Your task to perform on an android device: View the shopping cart on ebay.com. Search for "usb-a" on ebay.com, select the first entry, add it to the cart, then select checkout. Image 0: 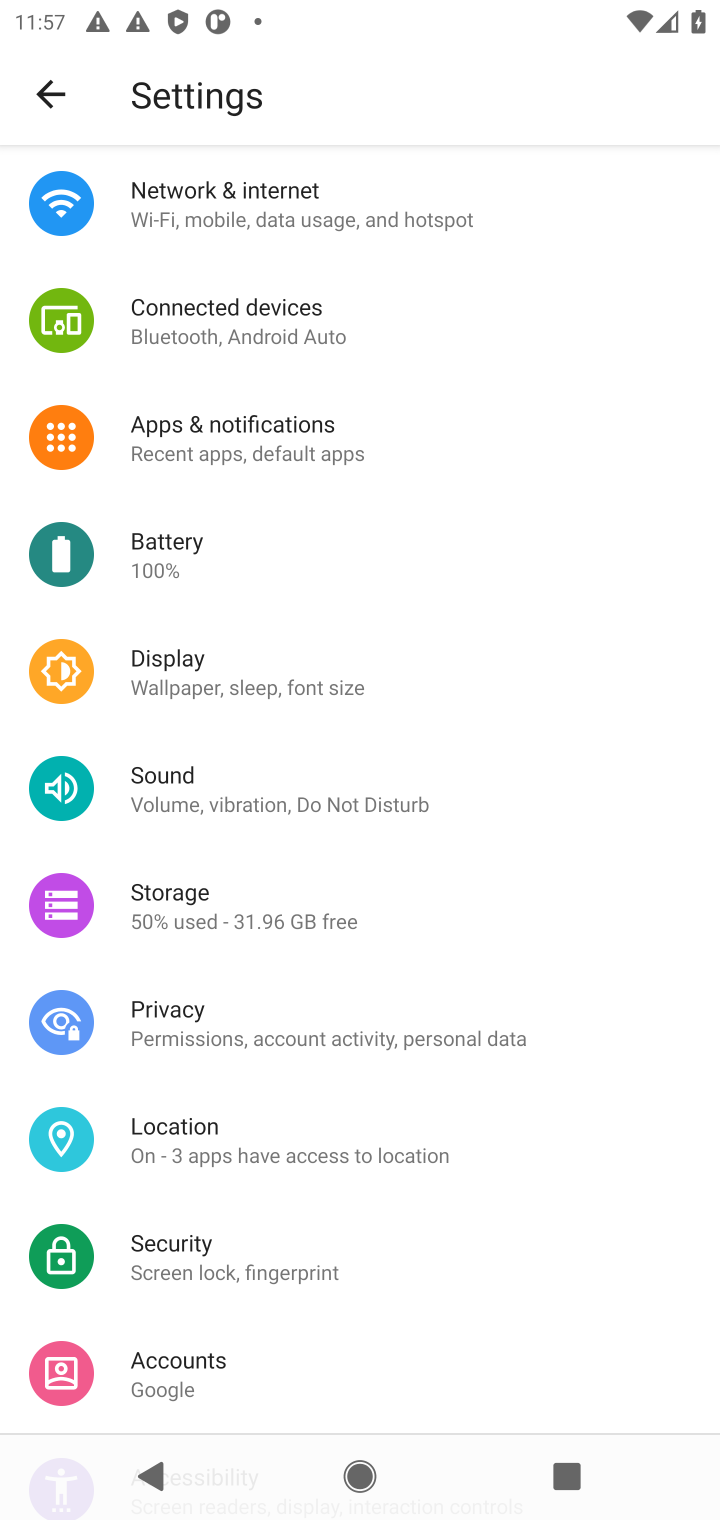
Step 0: press home button
Your task to perform on an android device: View the shopping cart on ebay.com. Search for "usb-a" on ebay.com, select the first entry, add it to the cart, then select checkout. Image 1: 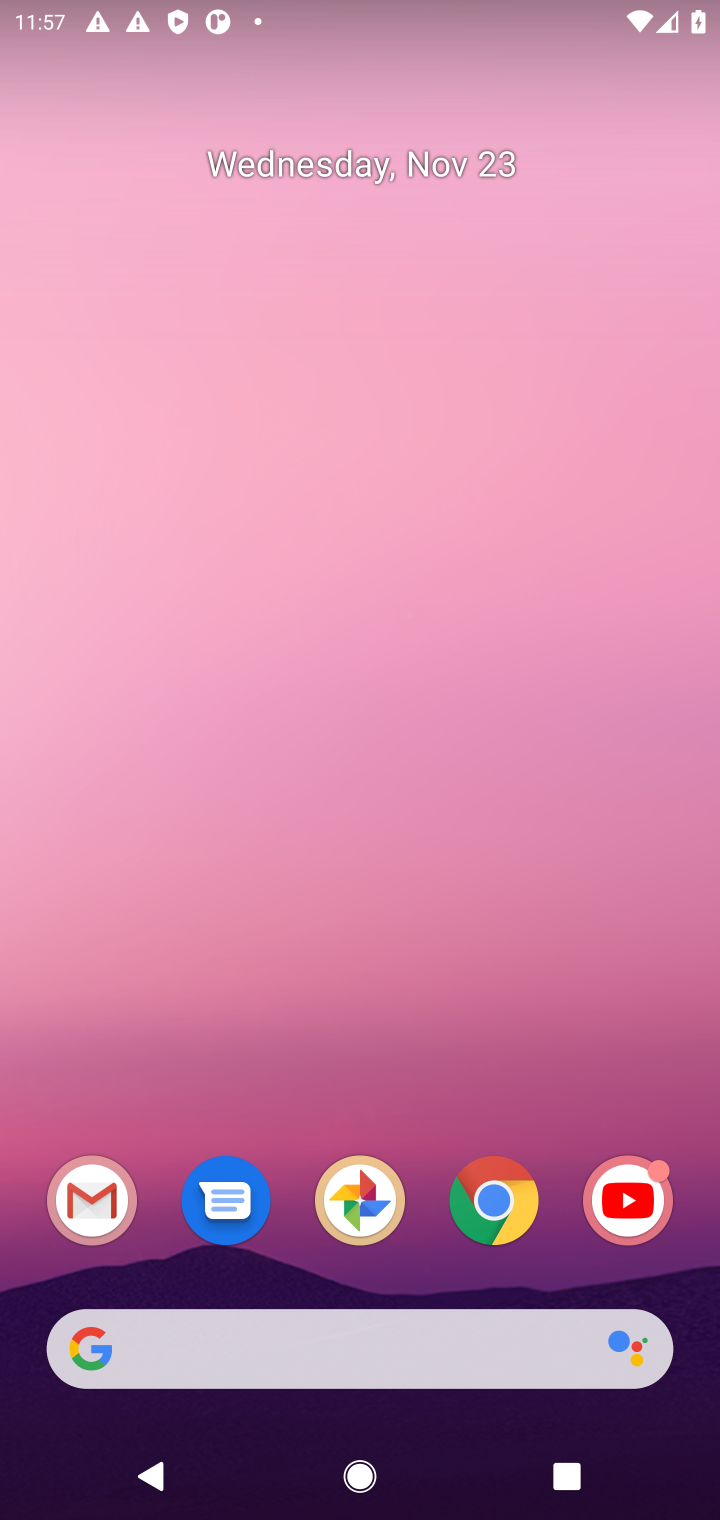
Step 1: click (478, 1337)
Your task to perform on an android device: View the shopping cart on ebay.com. Search for "usb-a" on ebay.com, select the first entry, add it to the cart, then select checkout. Image 2: 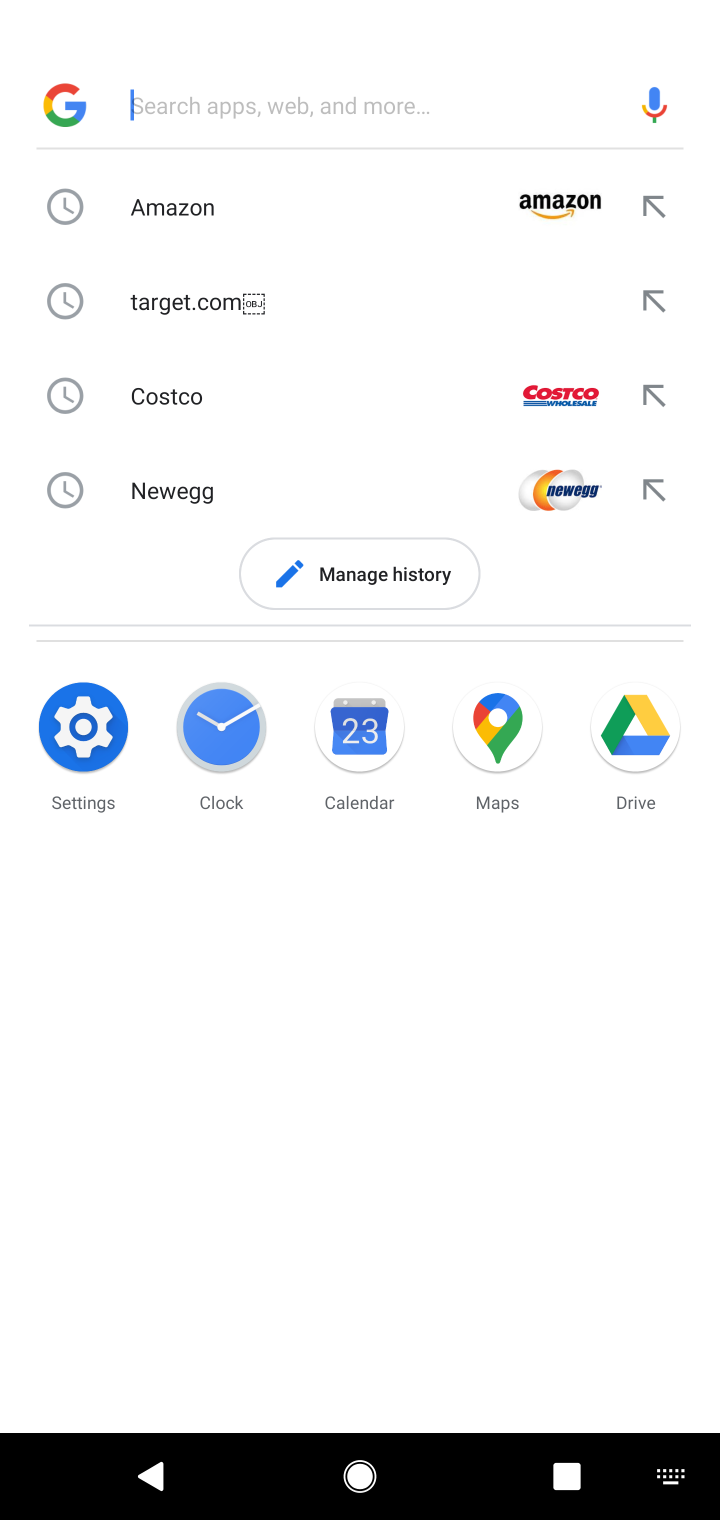
Step 2: type "ebay.com"
Your task to perform on an android device: View the shopping cart on ebay.com. Search for "usb-a" on ebay.com, select the first entry, add it to the cart, then select checkout. Image 3: 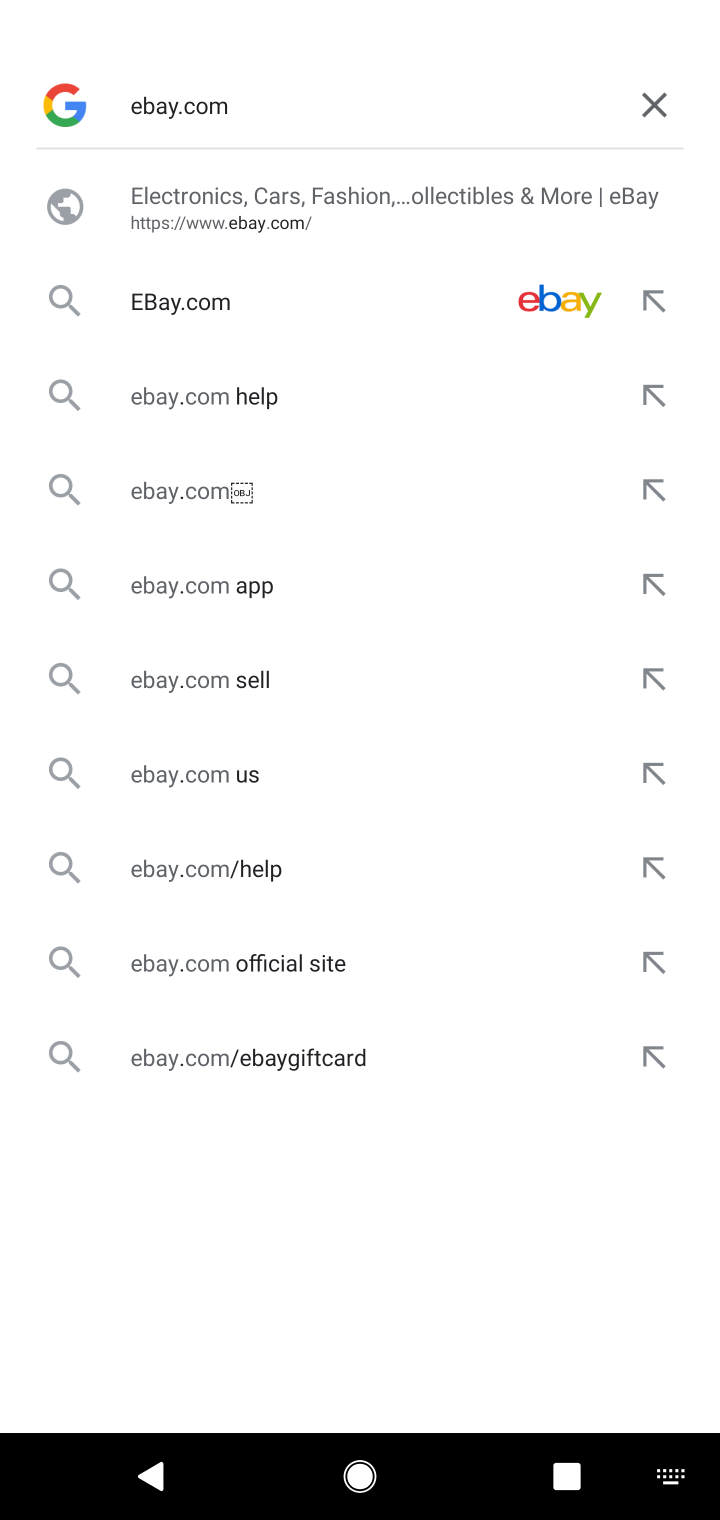
Step 3: click (293, 310)
Your task to perform on an android device: View the shopping cart on ebay.com. Search for "usb-a" on ebay.com, select the first entry, add it to the cart, then select checkout. Image 4: 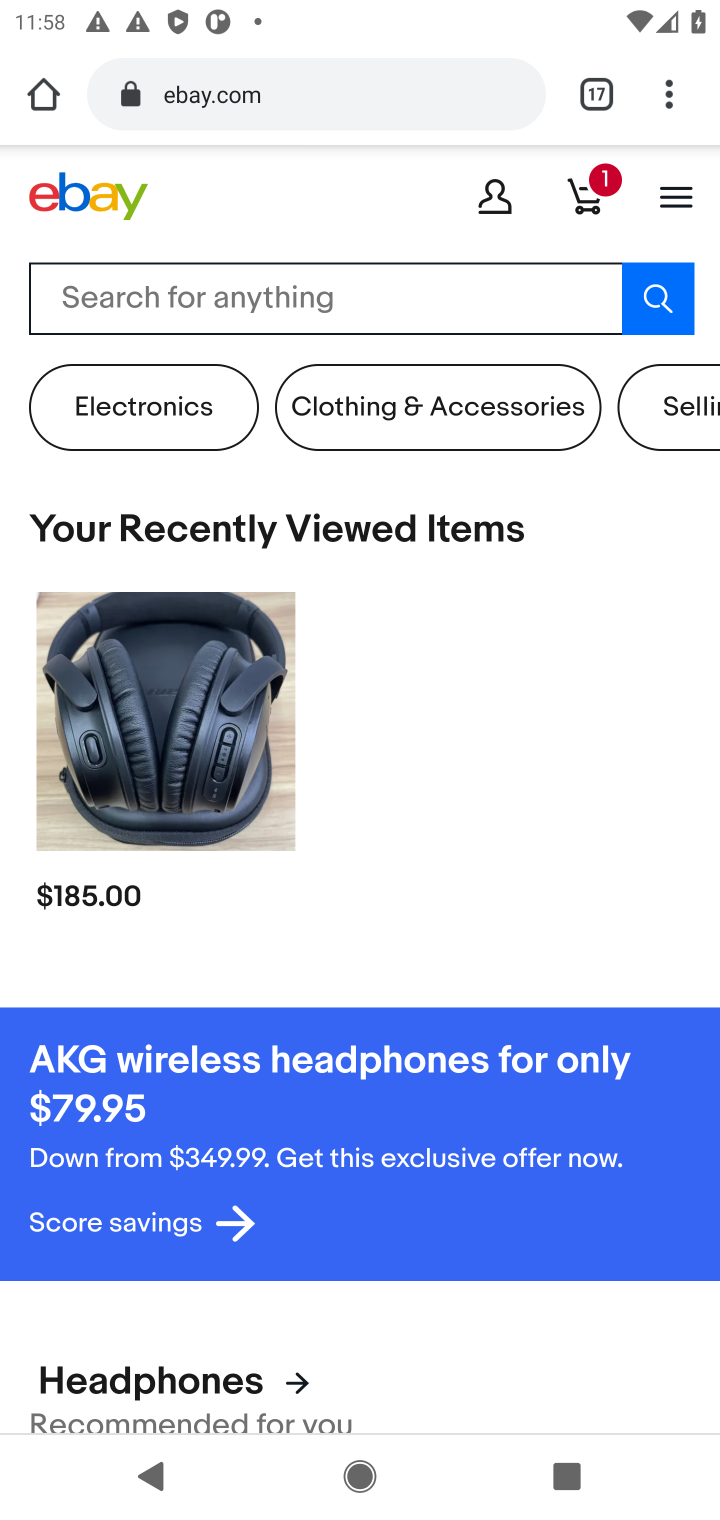
Step 4: click (293, 310)
Your task to perform on an android device: View the shopping cart on ebay.com. Search for "usb-a" on ebay.com, select the first entry, add it to the cart, then select checkout. Image 5: 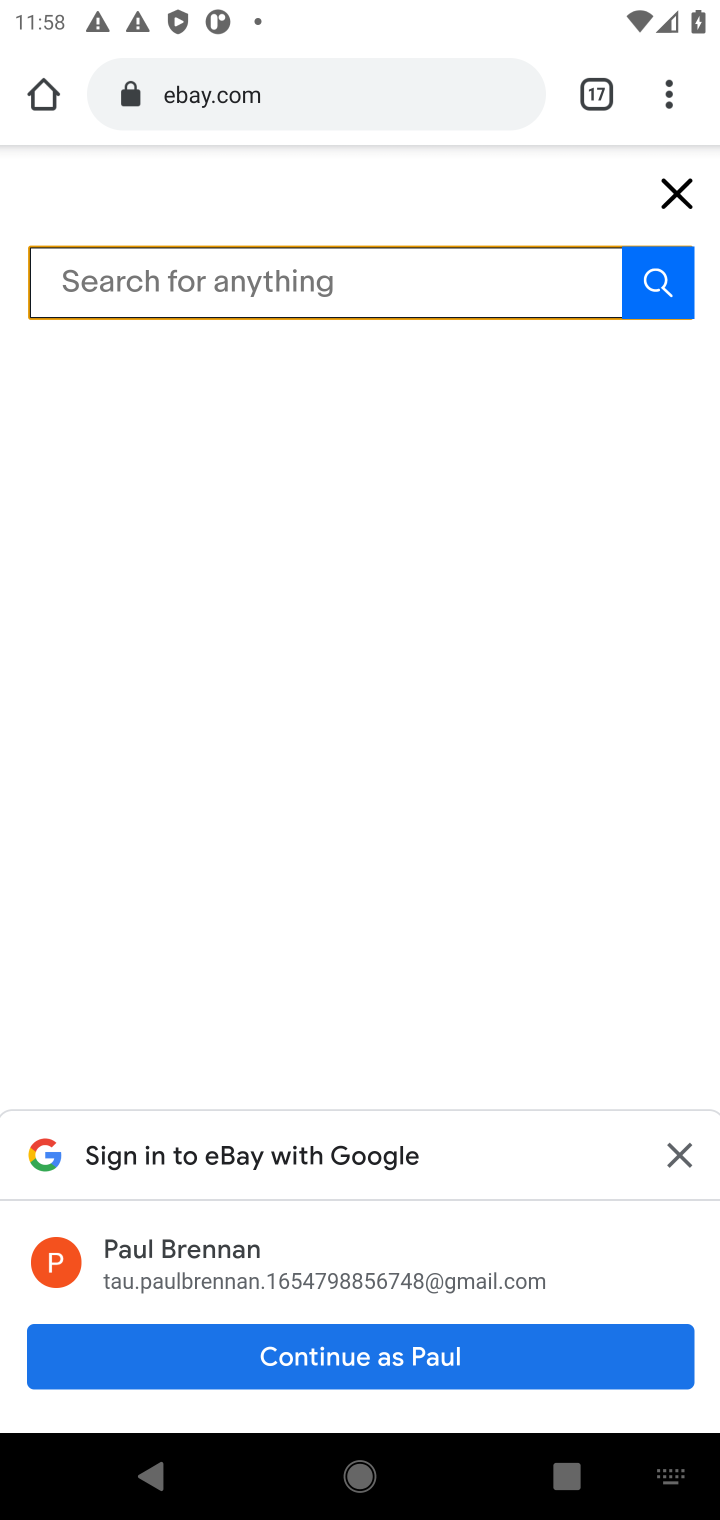
Step 5: type "usb-a"
Your task to perform on an android device: View the shopping cart on ebay.com. Search for "usb-a" on ebay.com, select the first entry, add it to the cart, then select checkout. Image 6: 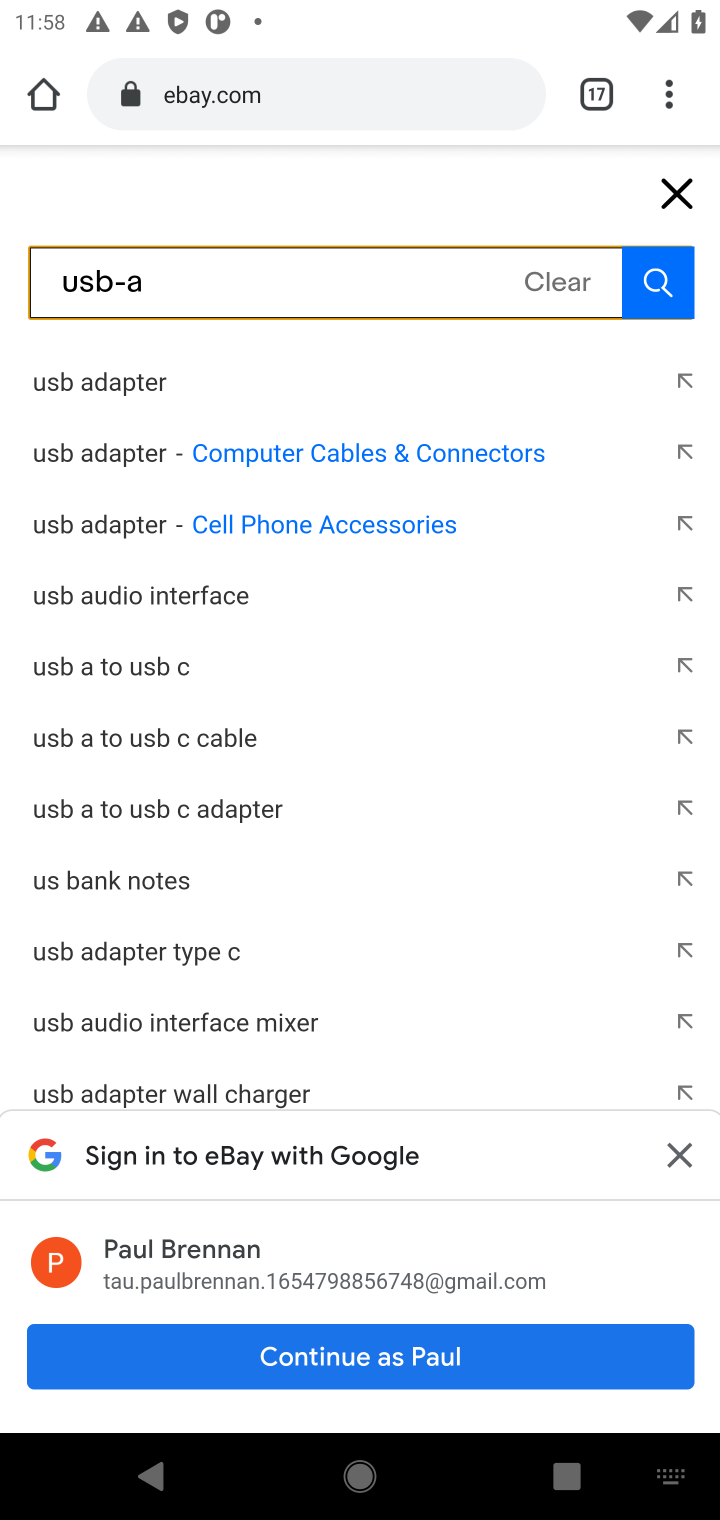
Step 6: click (655, 280)
Your task to perform on an android device: View the shopping cart on ebay.com. Search for "usb-a" on ebay.com, select the first entry, add it to the cart, then select checkout. Image 7: 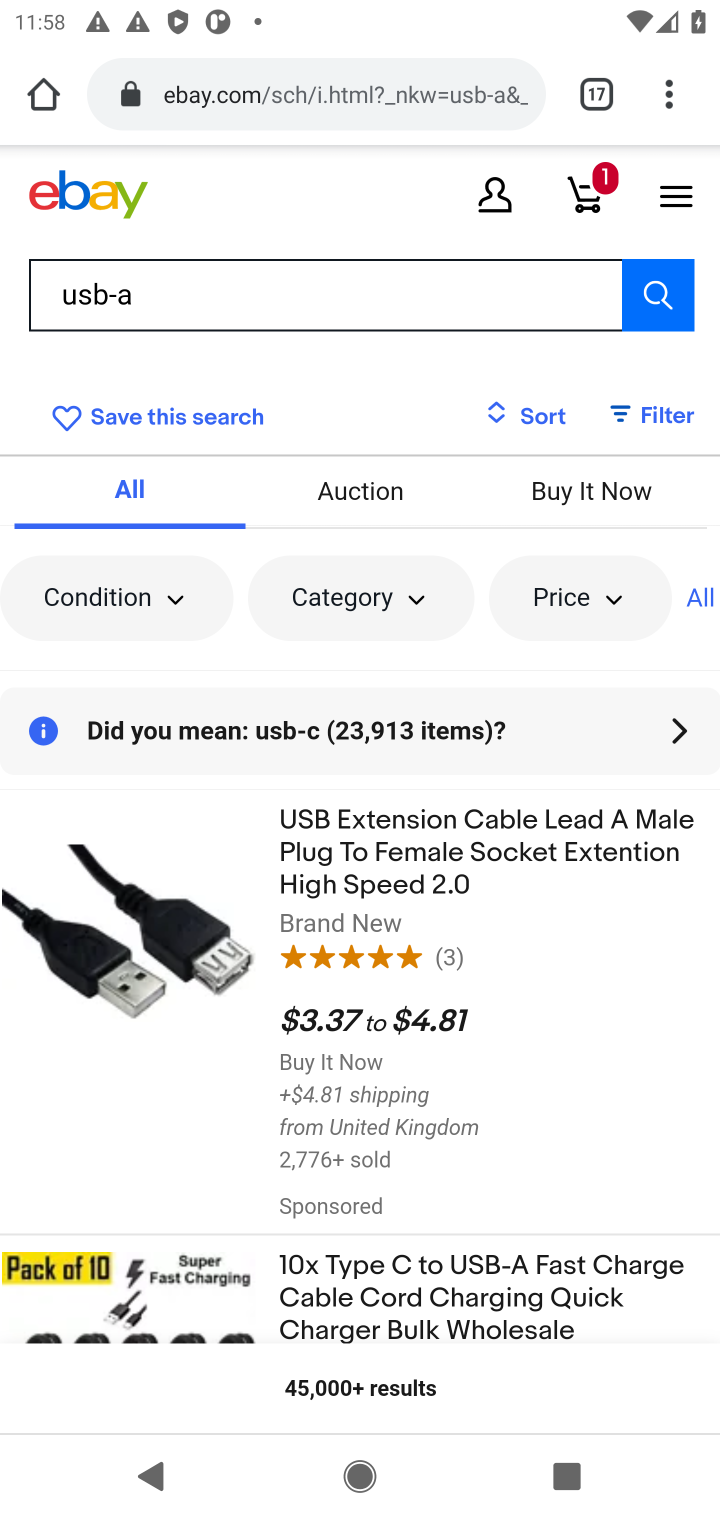
Step 7: click (459, 857)
Your task to perform on an android device: View the shopping cart on ebay.com. Search for "usb-a" on ebay.com, select the first entry, add it to the cart, then select checkout. Image 8: 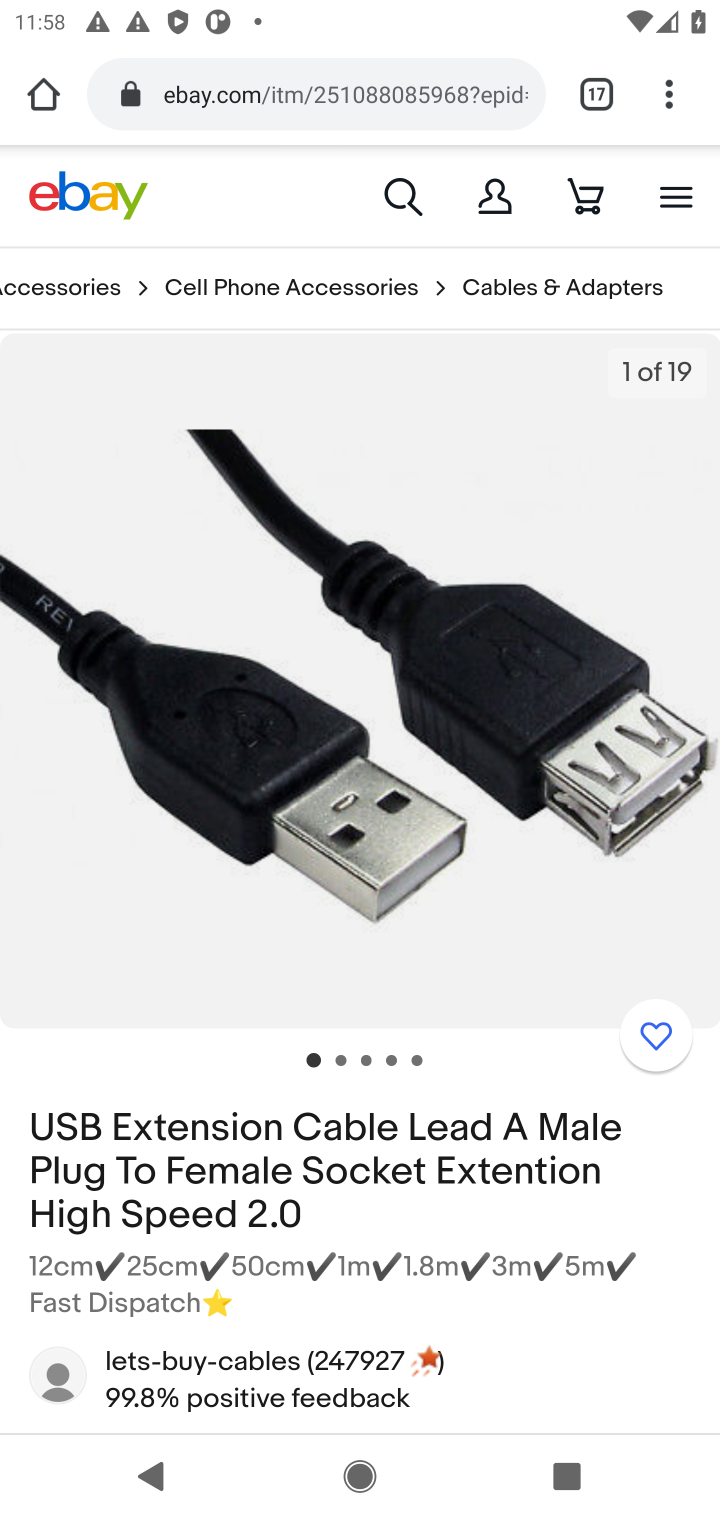
Step 8: drag from (429, 1071) to (391, 483)
Your task to perform on an android device: View the shopping cart on ebay.com. Search for "usb-a" on ebay.com, select the first entry, add it to the cart, then select checkout. Image 9: 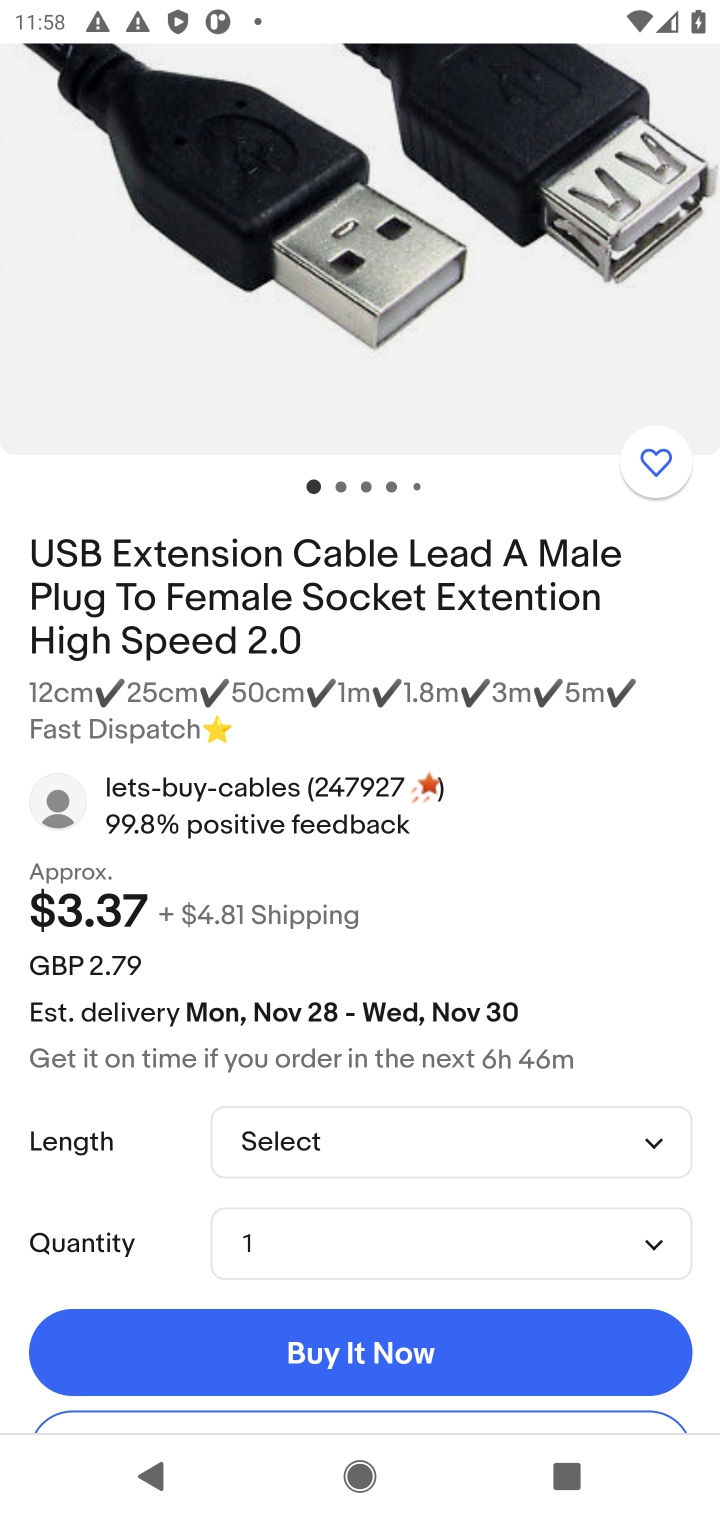
Step 9: drag from (591, 929) to (530, 618)
Your task to perform on an android device: View the shopping cart on ebay.com. Search for "usb-a" on ebay.com, select the first entry, add it to the cart, then select checkout. Image 10: 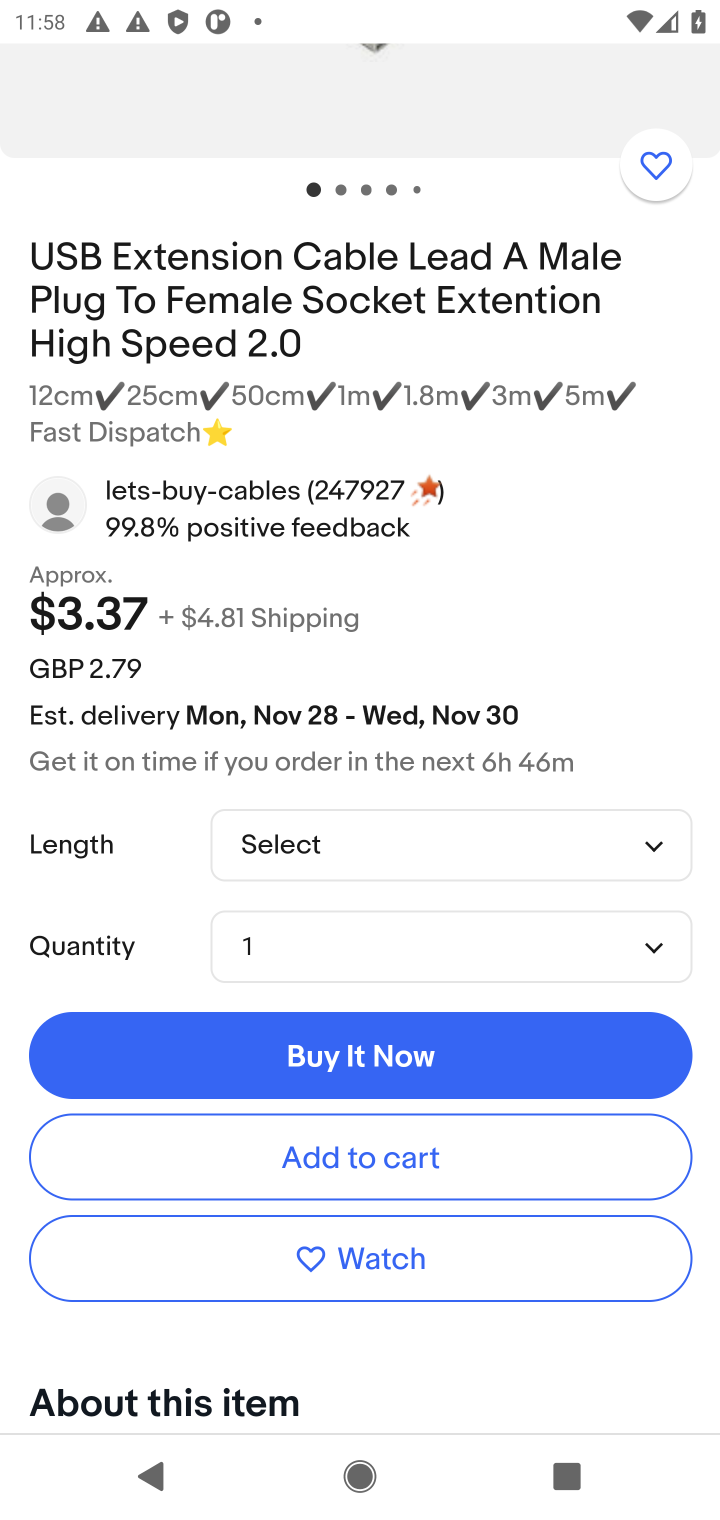
Step 10: click (553, 1131)
Your task to perform on an android device: View the shopping cart on ebay.com. Search for "usb-a" on ebay.com, select the first entry, add it to the cart, then select checkout. Image 11: 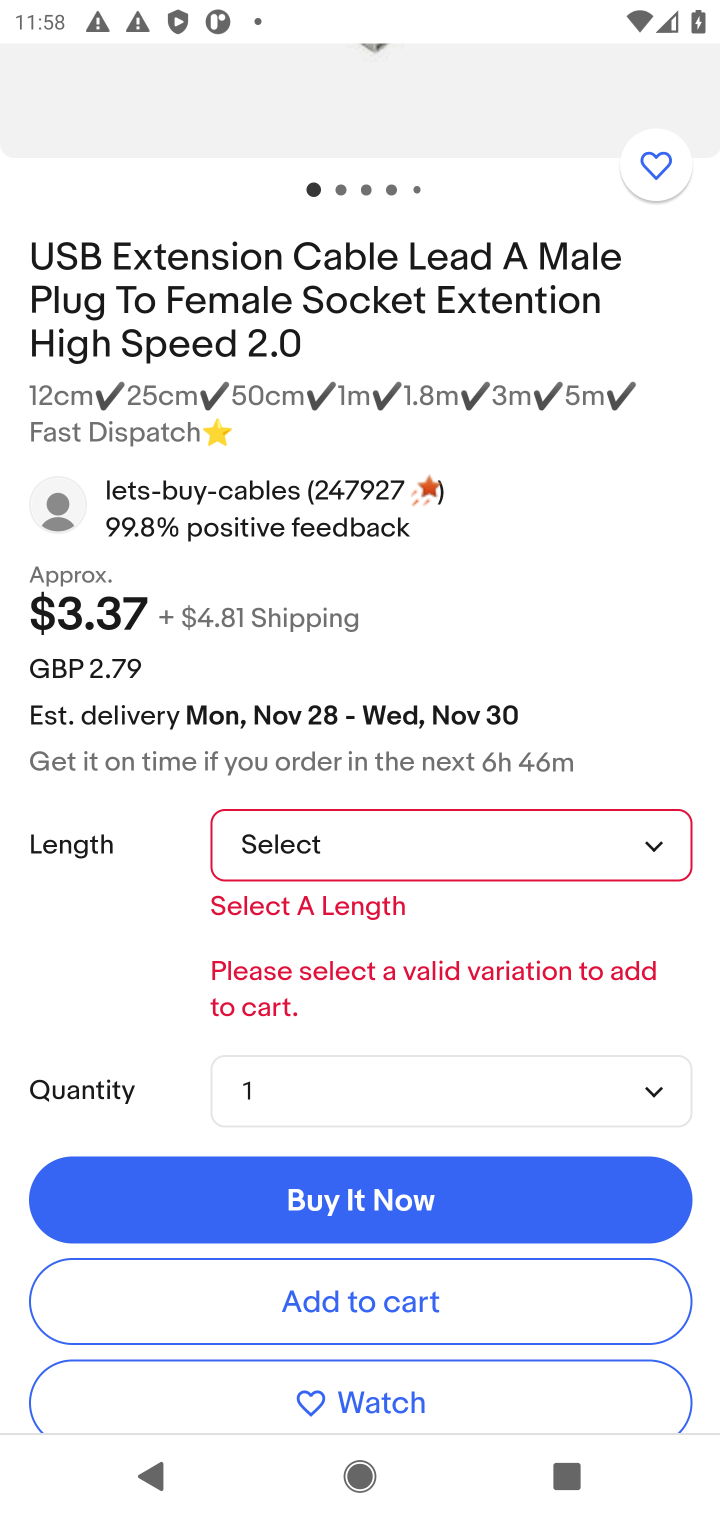
Step 11: task complete